Your task to perform on an android device: empty trash in google photos Image 0: 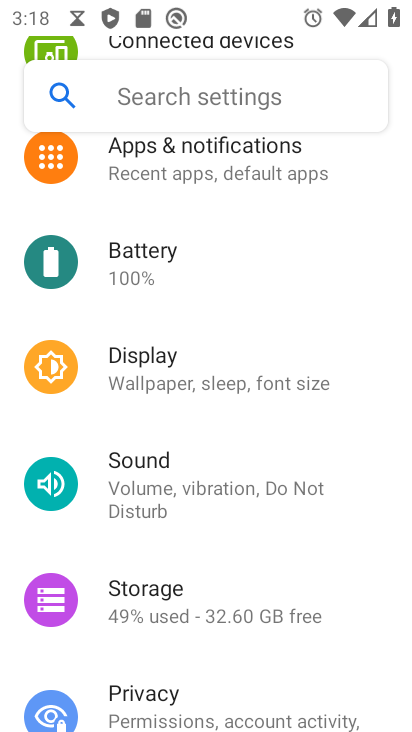
Step 0: press home button
Your task to perform on an android device: empty trash in google photos Image 1: 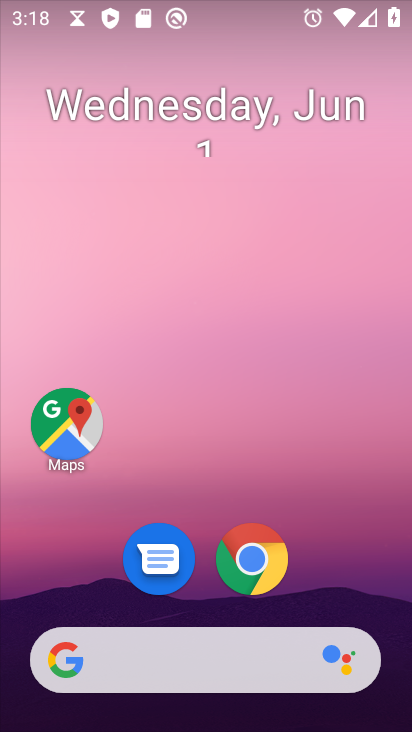
Step 1: drag from (100, 571) to (205, 78)
Your task to perform on an android device: empty trash in google photos Image 2: 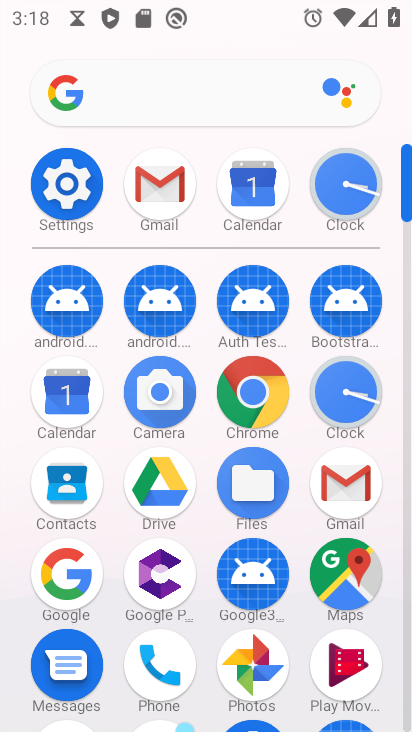
Step 2: click (257, 662)
Your task to perform on an android device: empty trash in google photos Image 3: 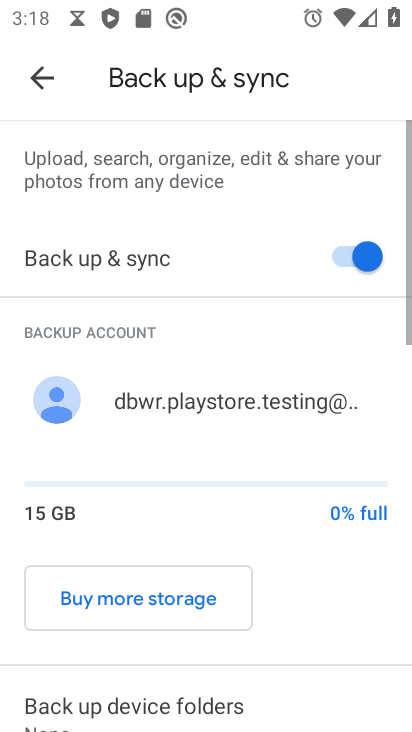
Step 3: click (48, 84)
Your task to perform on an android device: empty trash in google photos Image 4: 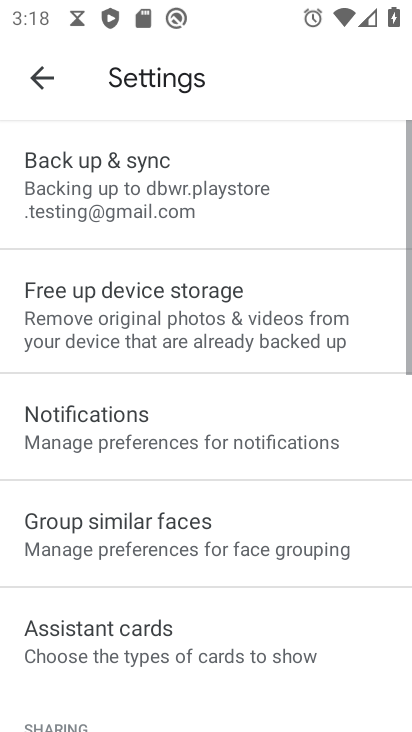
Step 4: click (47, 82)
Your task to perform on an android device: empty trash in google photos Image 5: 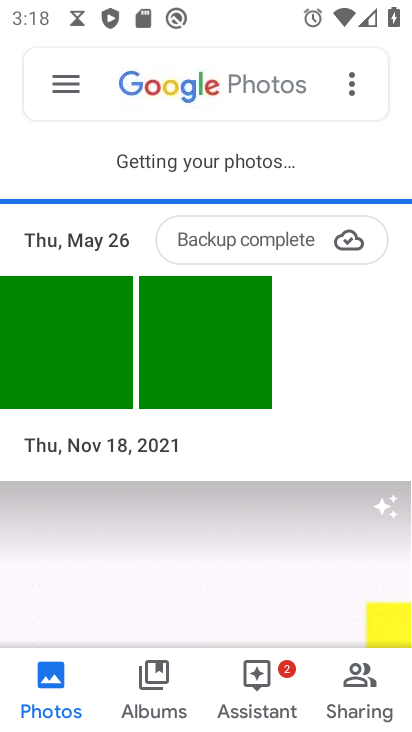
Step 5: click (62, 85)
Your task to perform on an android device: empty trash in google photos Image 6: 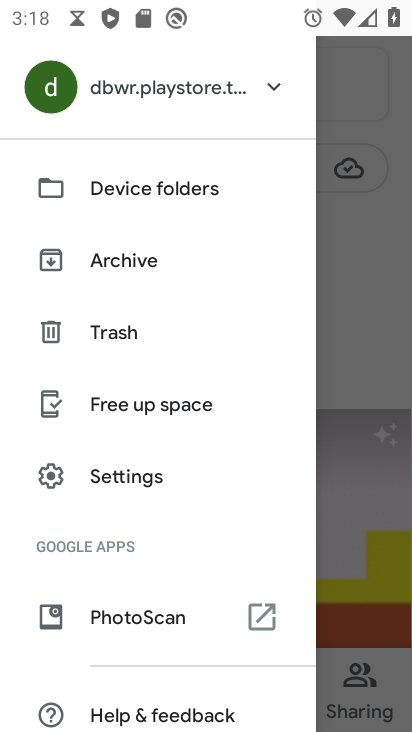
Step 6: click (119, 325)
Your task to perform on an android device: empty trash in google photos Image 7: 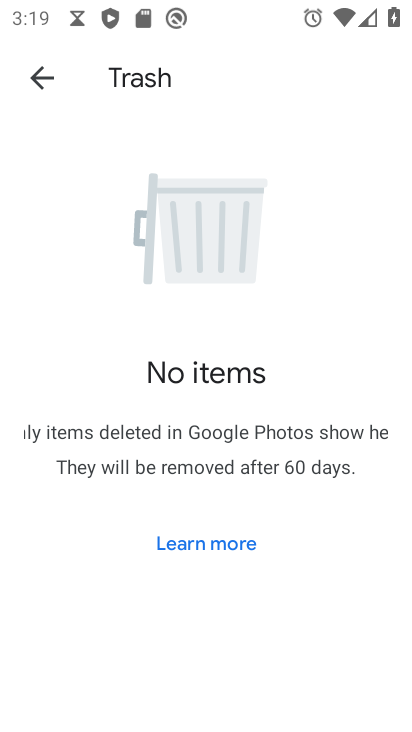
Step 7: task complete